Your task to perform on an android device: toggle pop-ups in chrome Image 0: 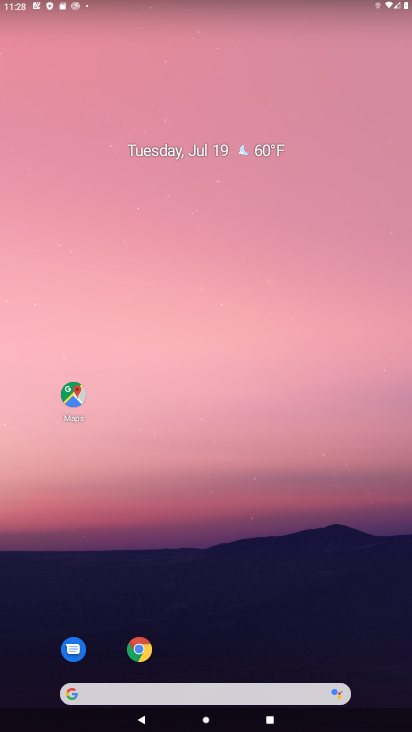
Step 0: drag from (178, 691) to (160, 59)
Your task to perform on an android device: toggle pop-ups in chrome Image 1: 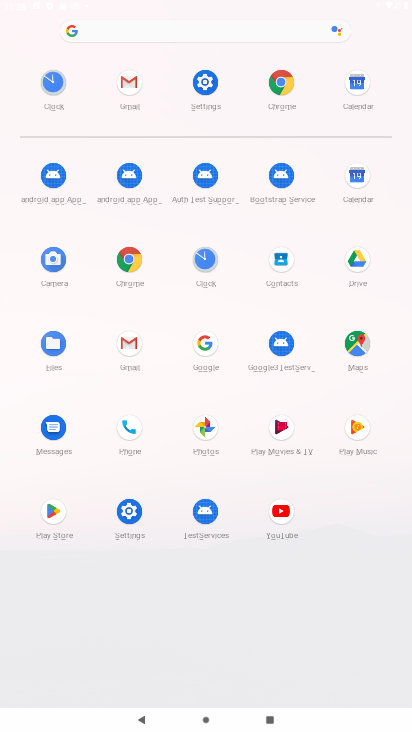
Step 1: click (122, 264)
Your task to perform on an android device: toggle pop-ups in chrome Image 2: 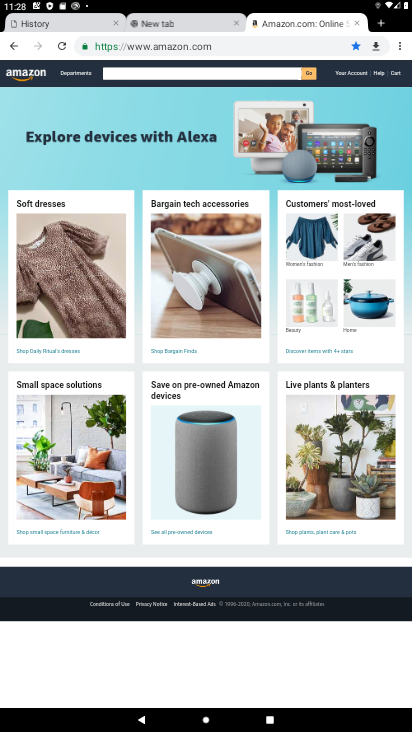
Step 2: drag from (399, 45) to (304, 309)
Your task to perform on an android device: toggle pop-ups in chrome Image 3: 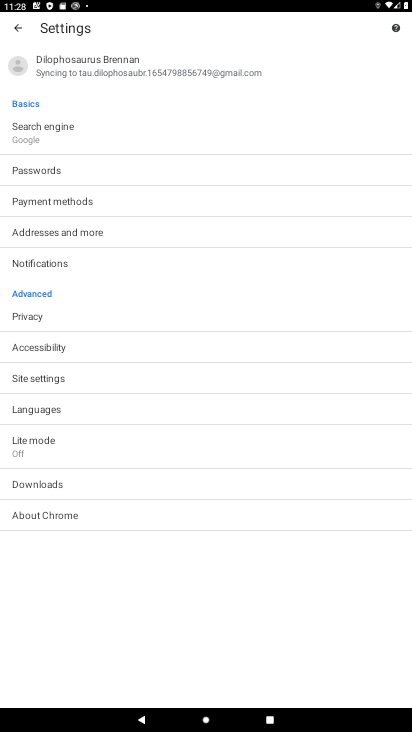
Step 3: click (71, 382)
Your task to perform on an android device: toggle pop-ups in chrome Image 4: 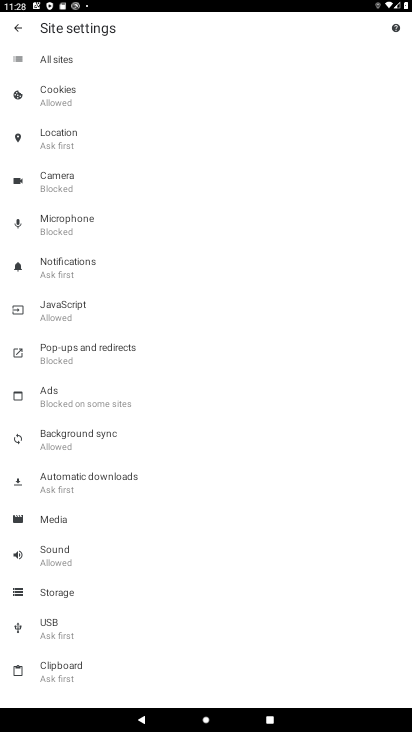
Step 4: click (66, 362)
Your task to perform on an android device: toggle pop-ups in chrome Image 5: 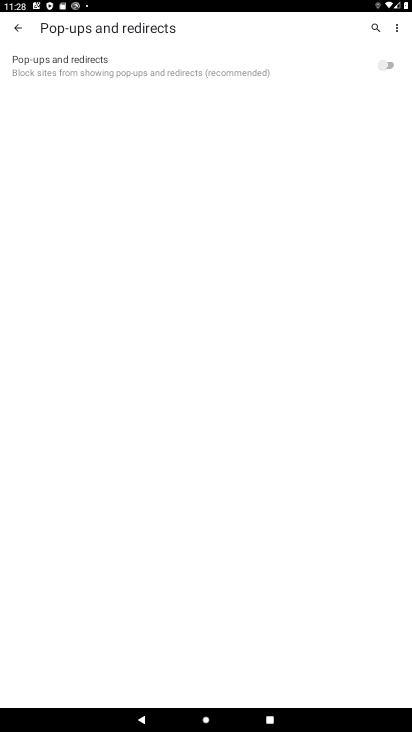
Step 5: click (384, 60)
Your task to perform on an android device: toggle pop-ups in chrome Image 6: 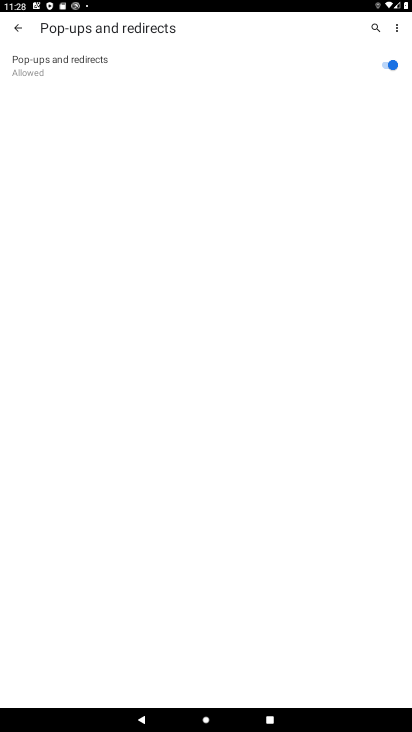
Step 6: task complete